Your task to perform on an android device: Turn on the flashlight Image 0: 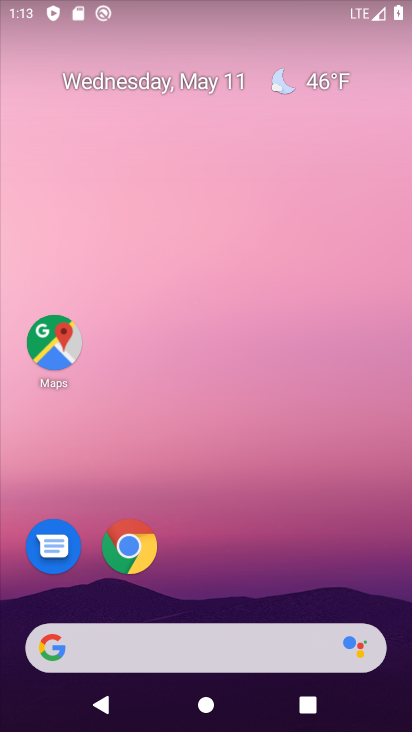
Step 0: drag from (268, 675) to (277, 268)
Your task to perform on an android device: Turn on the flashlight Image 1: 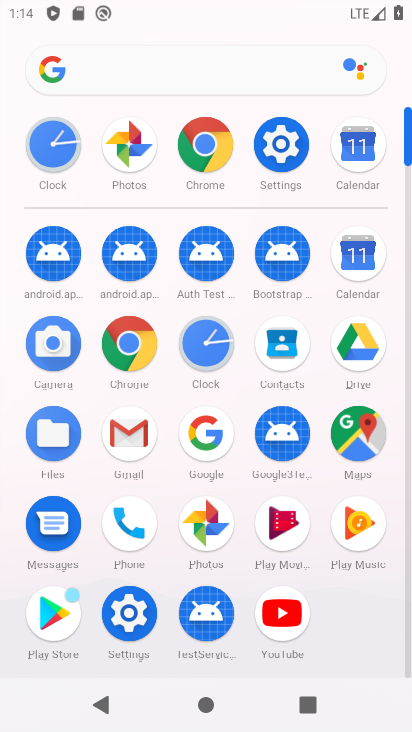
Step 1: click (281, 163)
Your task to perform on an android device: Turn on the flashlight Image 2: 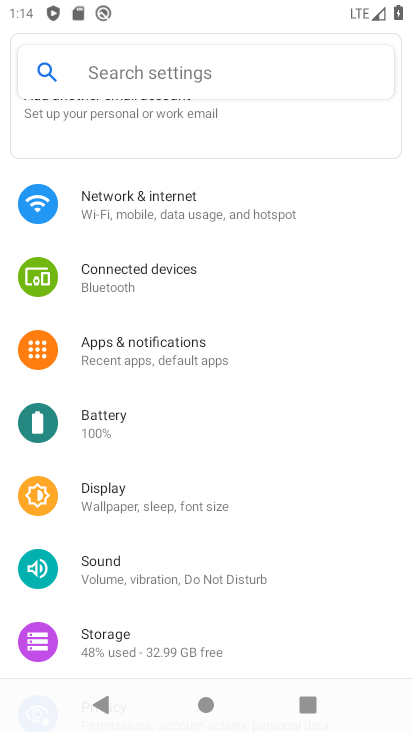
Step 2: click (142, 79)
Your task to perform on an android device: Turn on the flashlight Image 3: 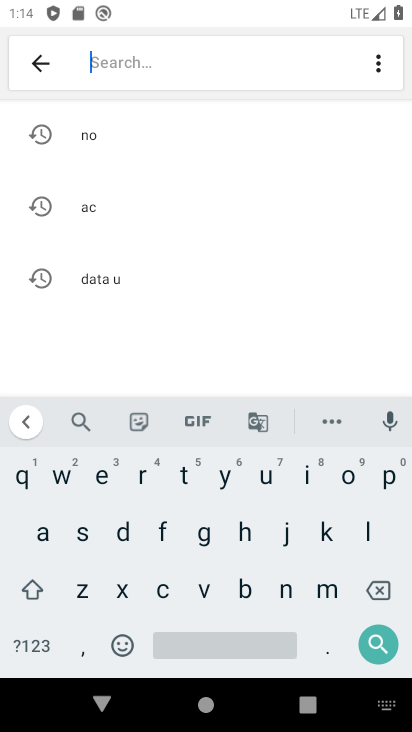
Step 3: click (165, 526)
Your task to perform on an android device: Turn on the flashlight Image 4: 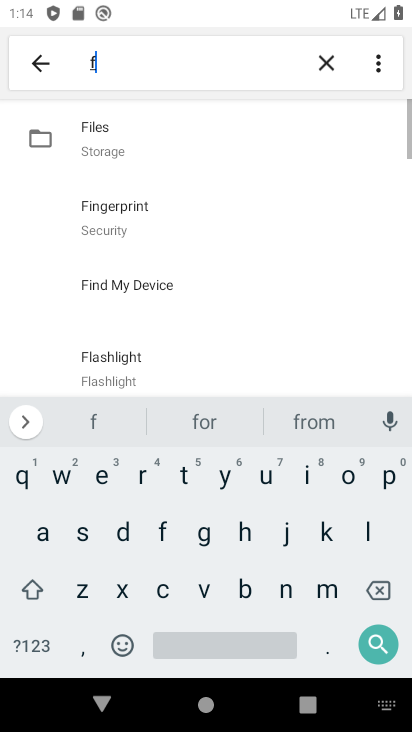
Step 4: click (366, 532)
Your task to perform on an android device: Turn on the flashlight Image 5: 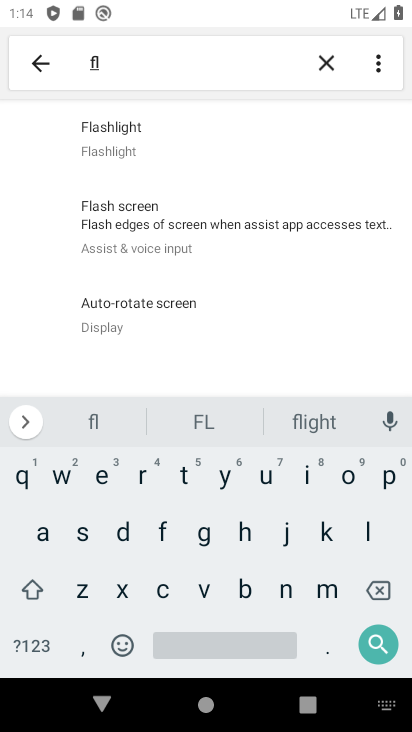
Step 5: click (138, 158)
Your task to perform on an android device: Turn on the flashlight Image 6: 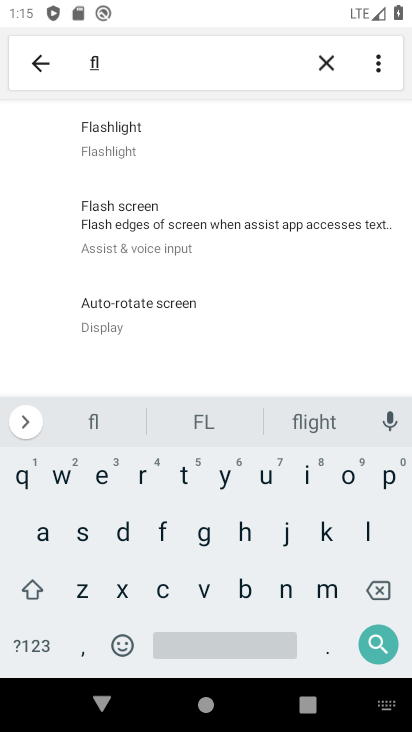
Step 6: click (146, 144)
Your task to perform on an android device: Turn on the flashlight Image 7: 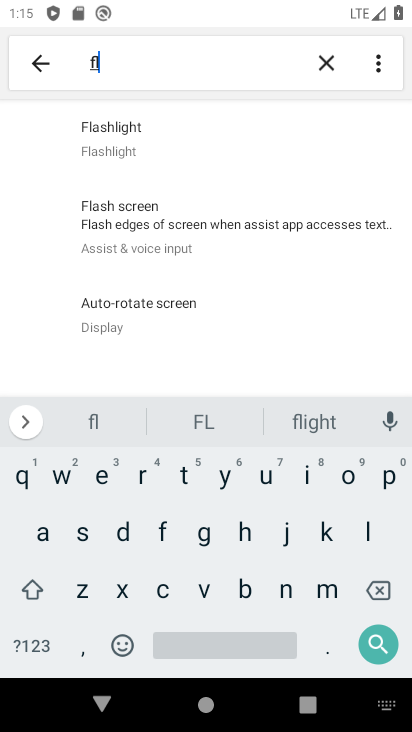
Step 7: task complete